Your task to perform on an android device: open app "Reddit" (install if not already installed) Image 0: 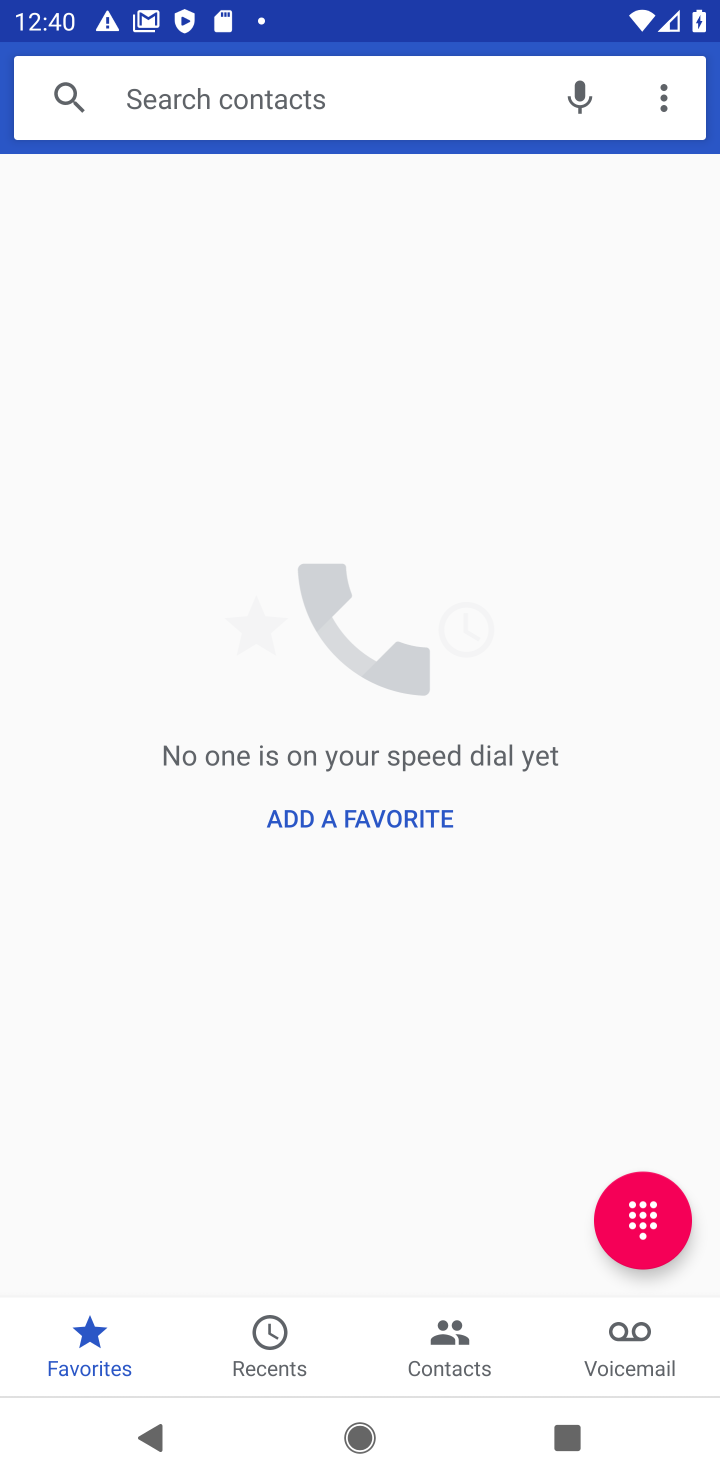
Step 0: press back button
Your task to perform on an android device: open app "Reddit" (install if not already installed) Image 1: 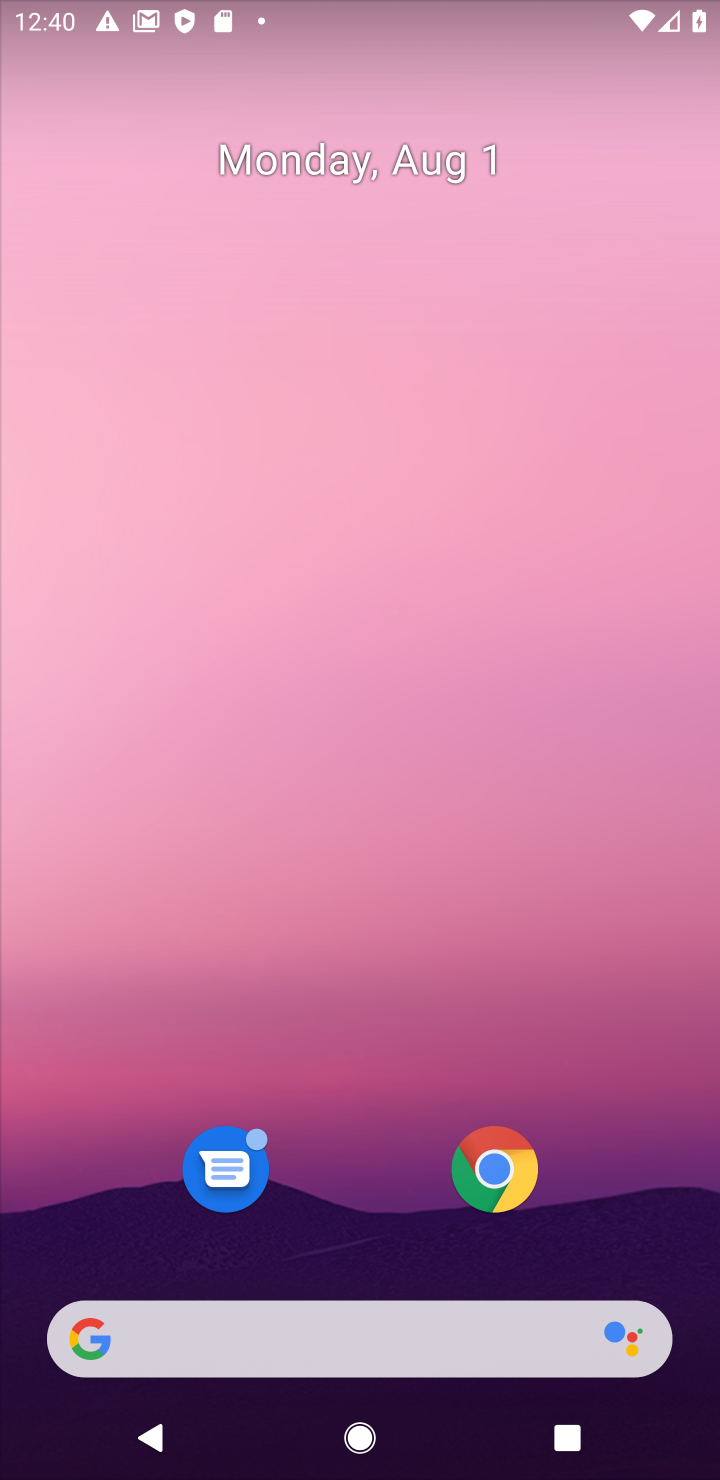
Step 1: drag from (326, 1133) to (343, 186)
Your task to perform on an android device: open app "Reddit" (install if not already installed) Image 2: 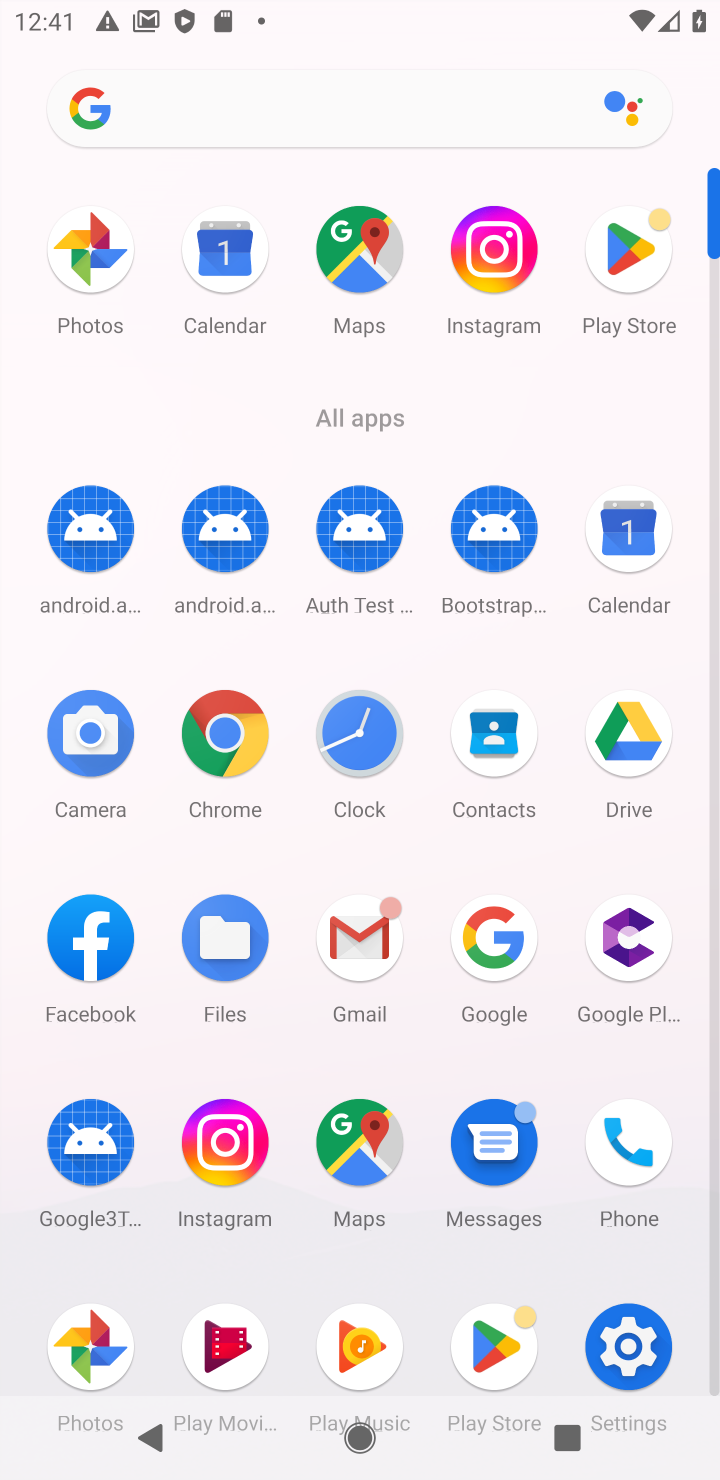
Step 2: click (482, 1361)
Your task to perform on an android device: open app "Reddit" (install if not already installed) Image 3: 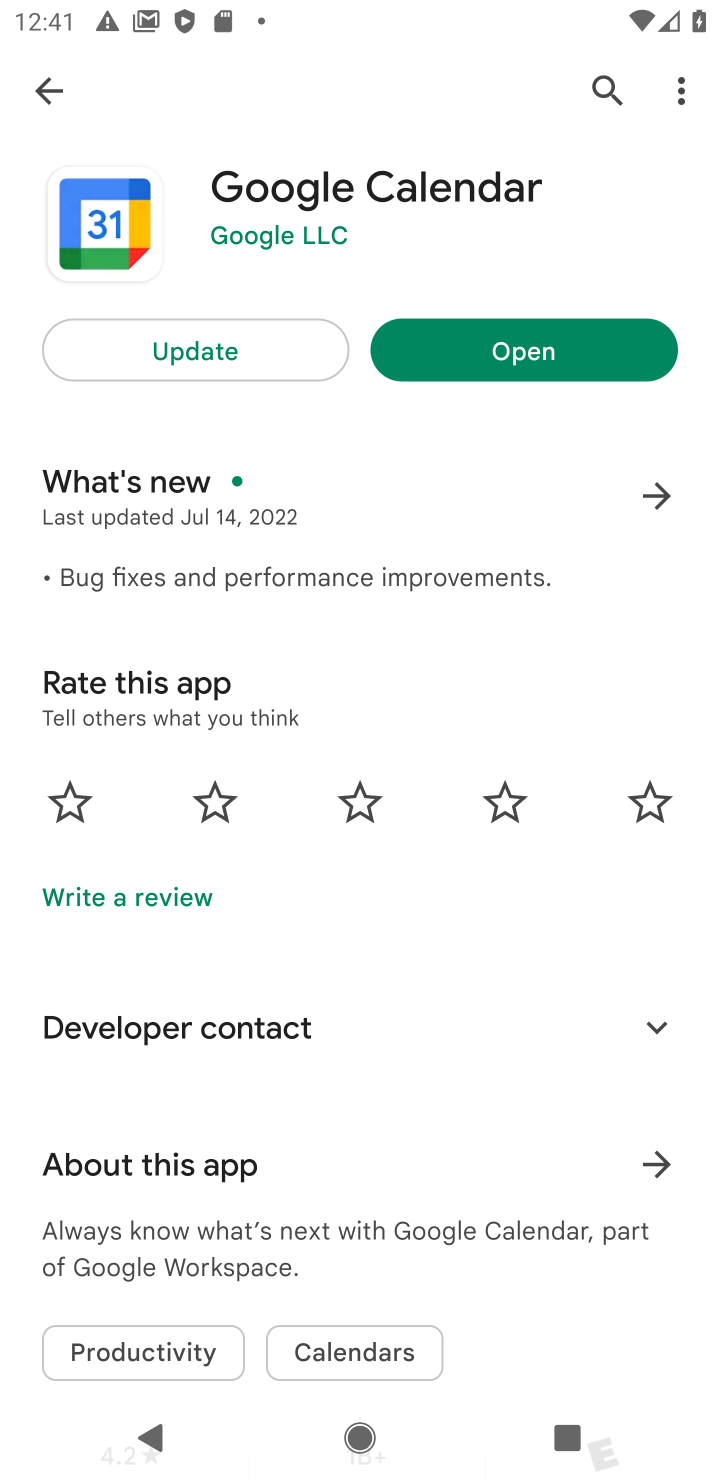
Step 3: click (48, 71)
Your task to perform on an android device: open app "Reddit" (install if not already installed) Image 4: 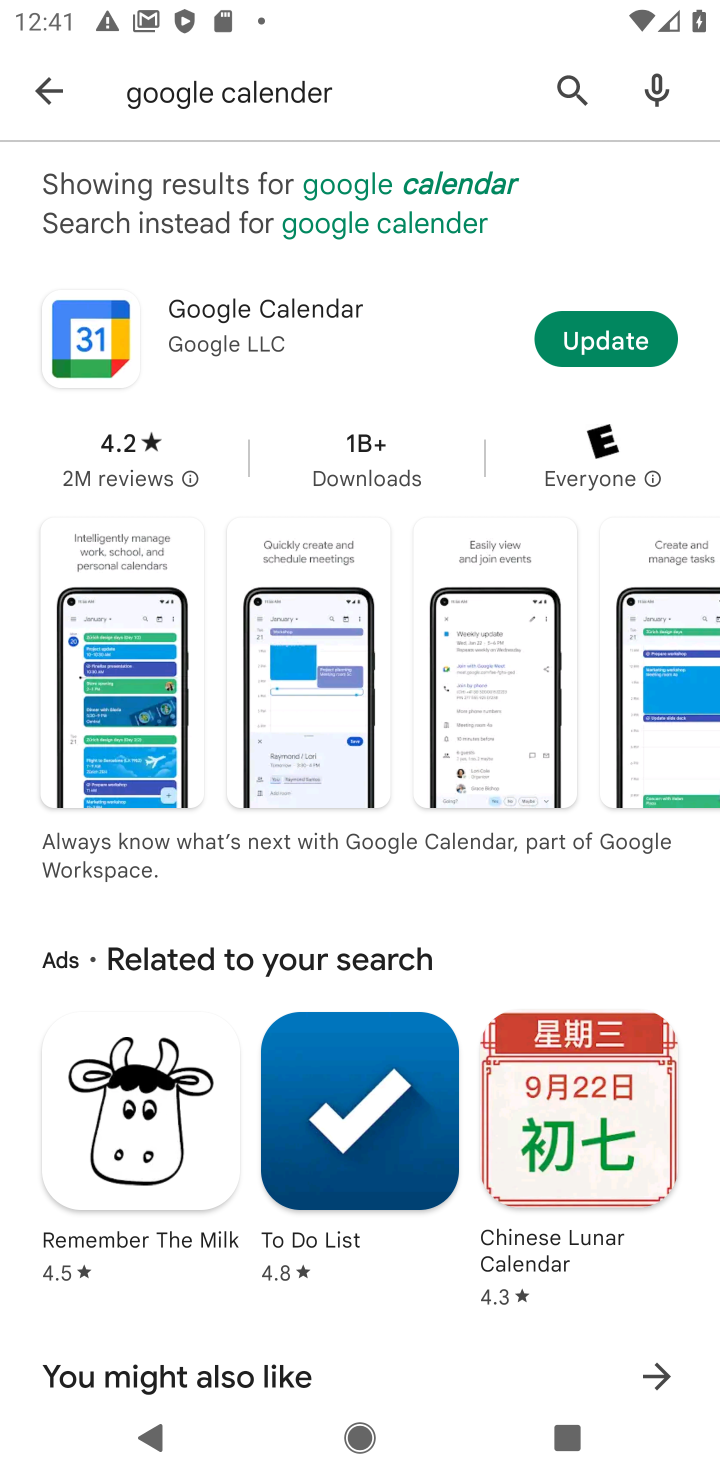
Step 4: click (48, 95)
Your task to perform on an android device: open app "Reddit" (install if not already installed) Image 5: 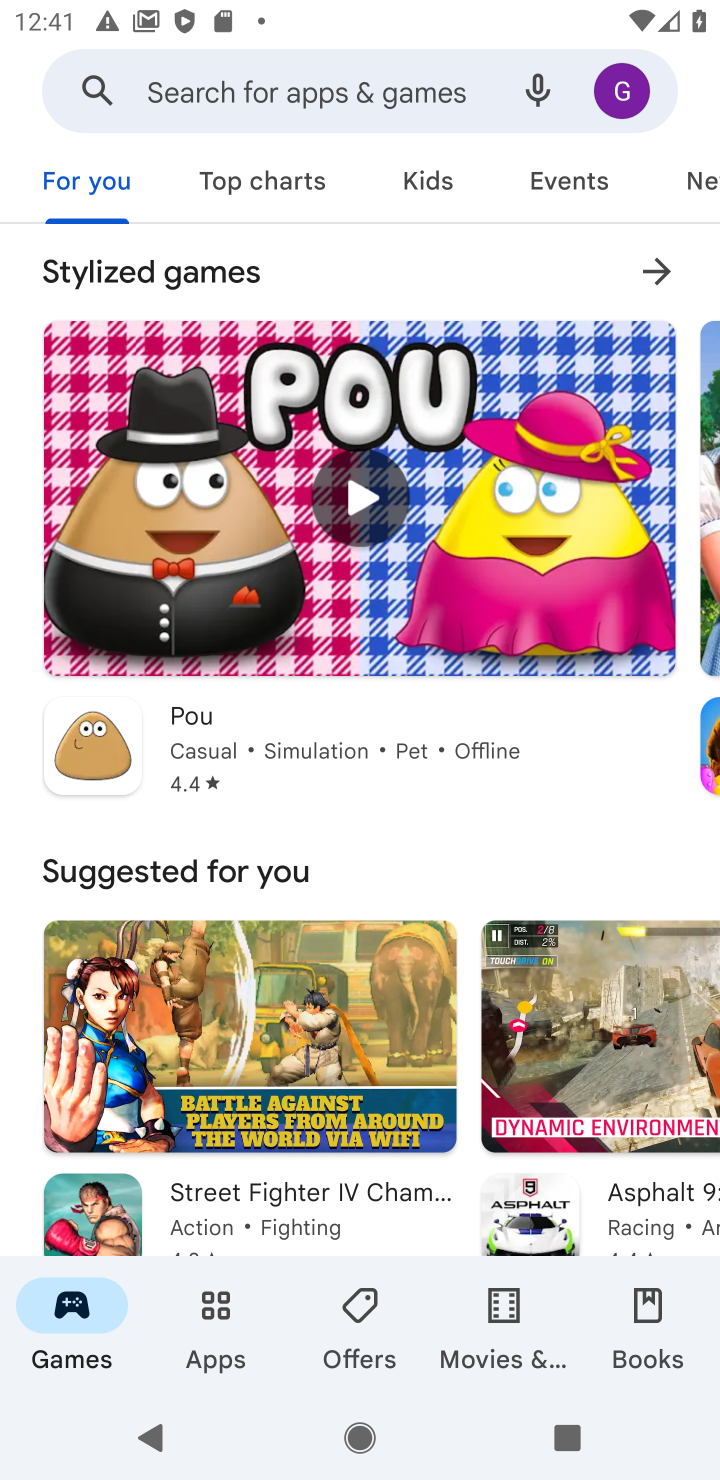
Step 5: click (174, 98)
Your task to perform on an android device: open app "Reddit" (install if not already installed) Image 6: 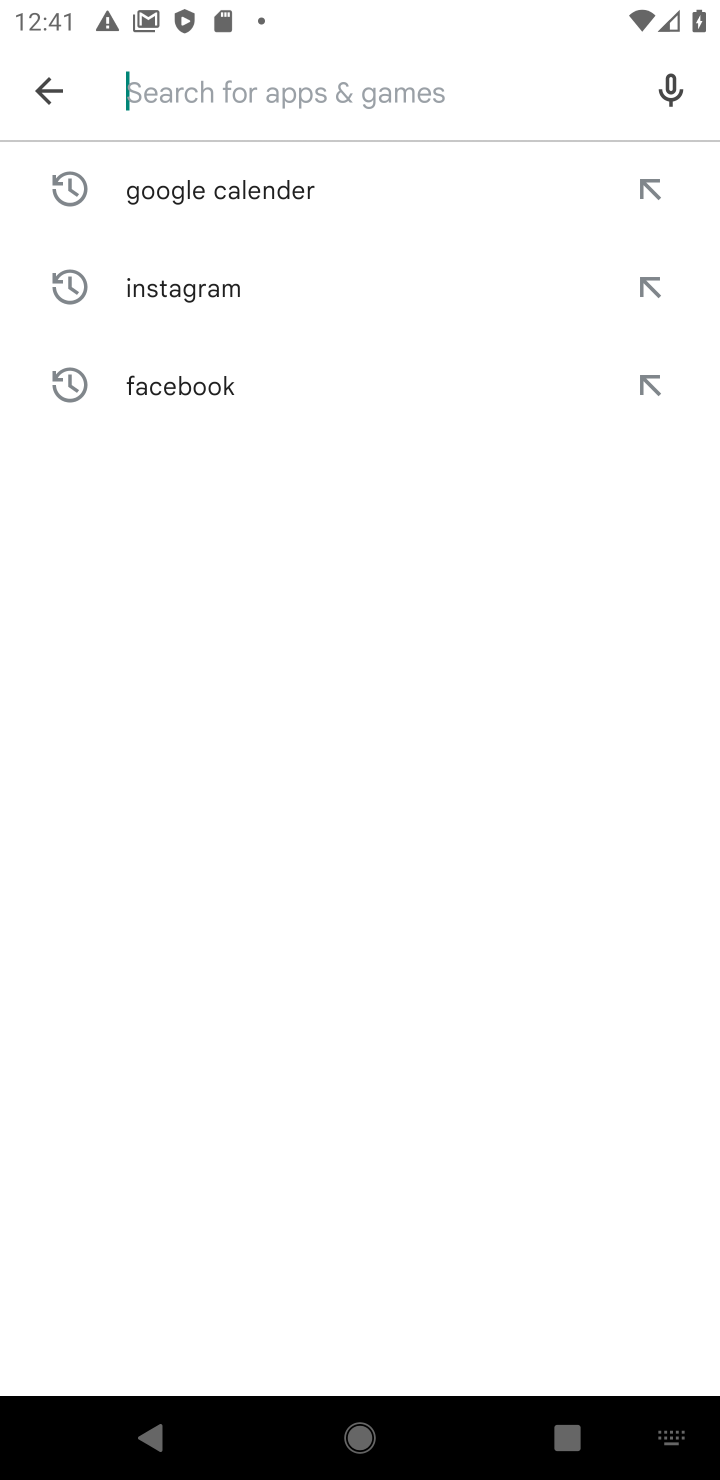
Step 6: type "Reddit"
Your task to perform on an android device: open app "Reddit" (install if not already installed) Image 7: 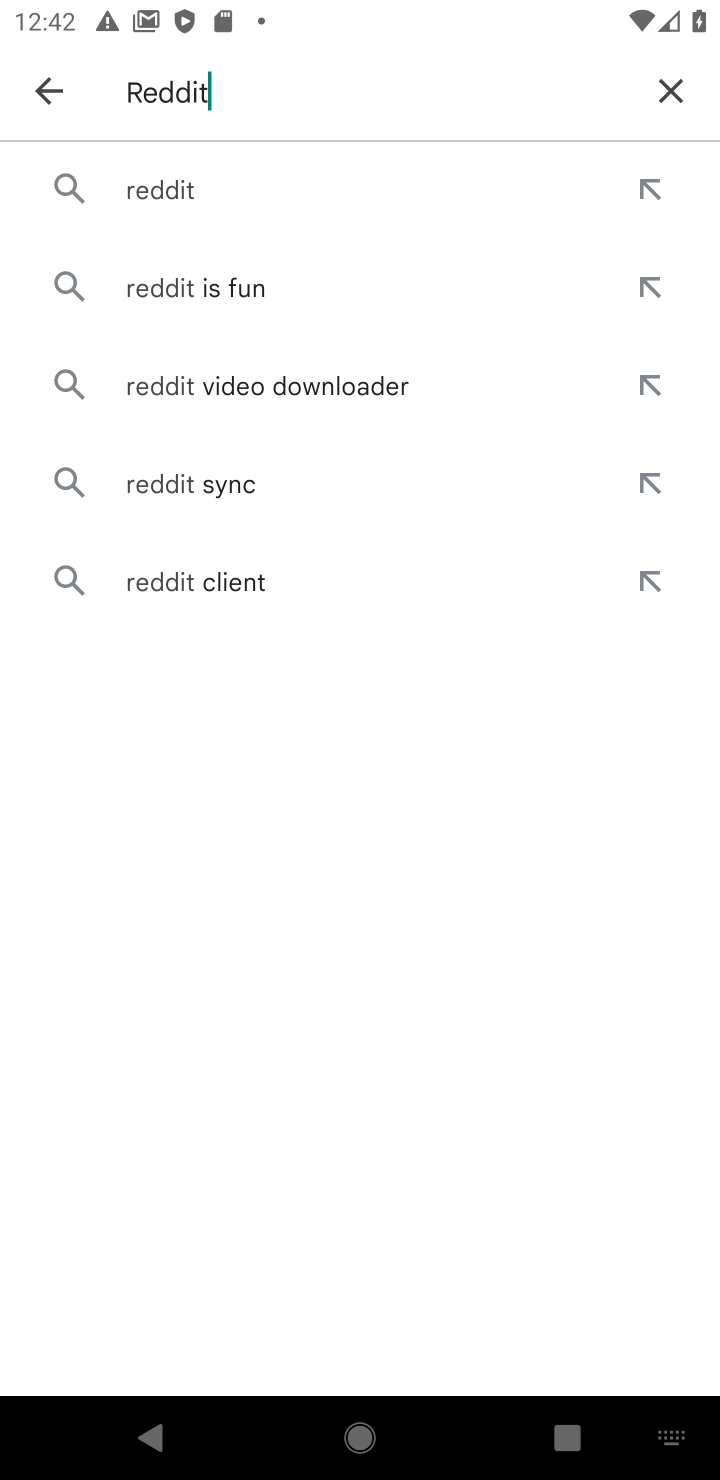
Step 7: click (178, 200)
Your task to perform on an android device: open app "Reddit" (install if not already installed) Image 8: 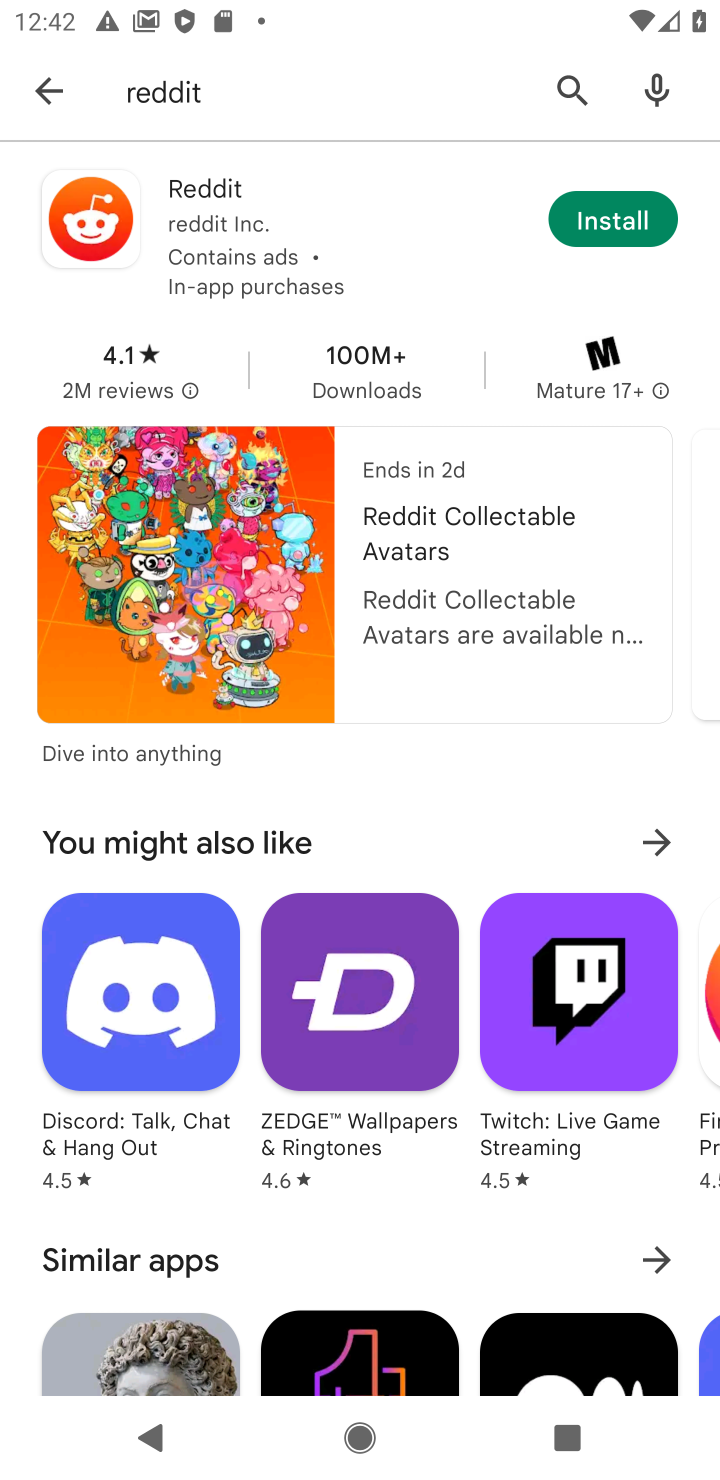
Step 8: click (635, 211)
Your task to perform on an android device: open app "Reddit" (install if not already installed) Image 9: 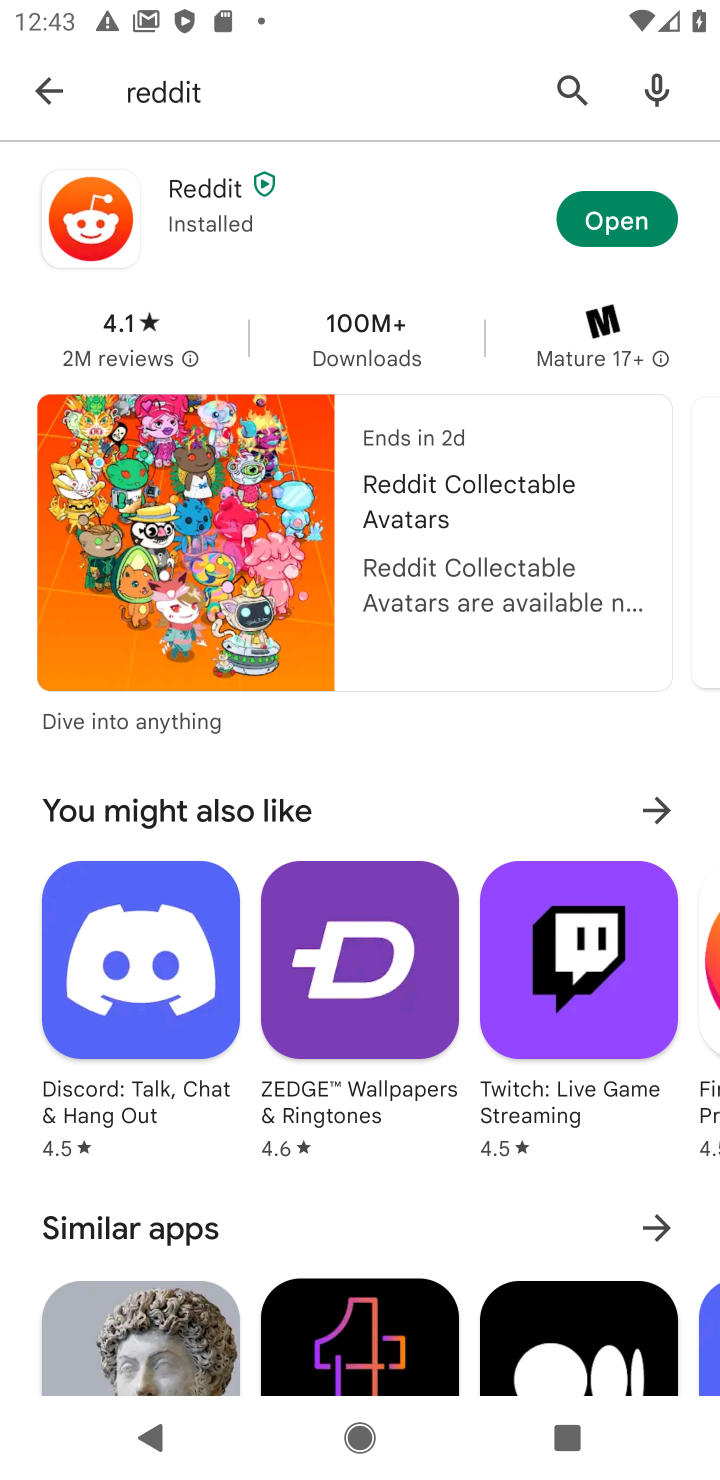
Step 9: click (599, 233)
Your task to perform on an android device: open app "Reddit" (install if not already installed) Image 10: 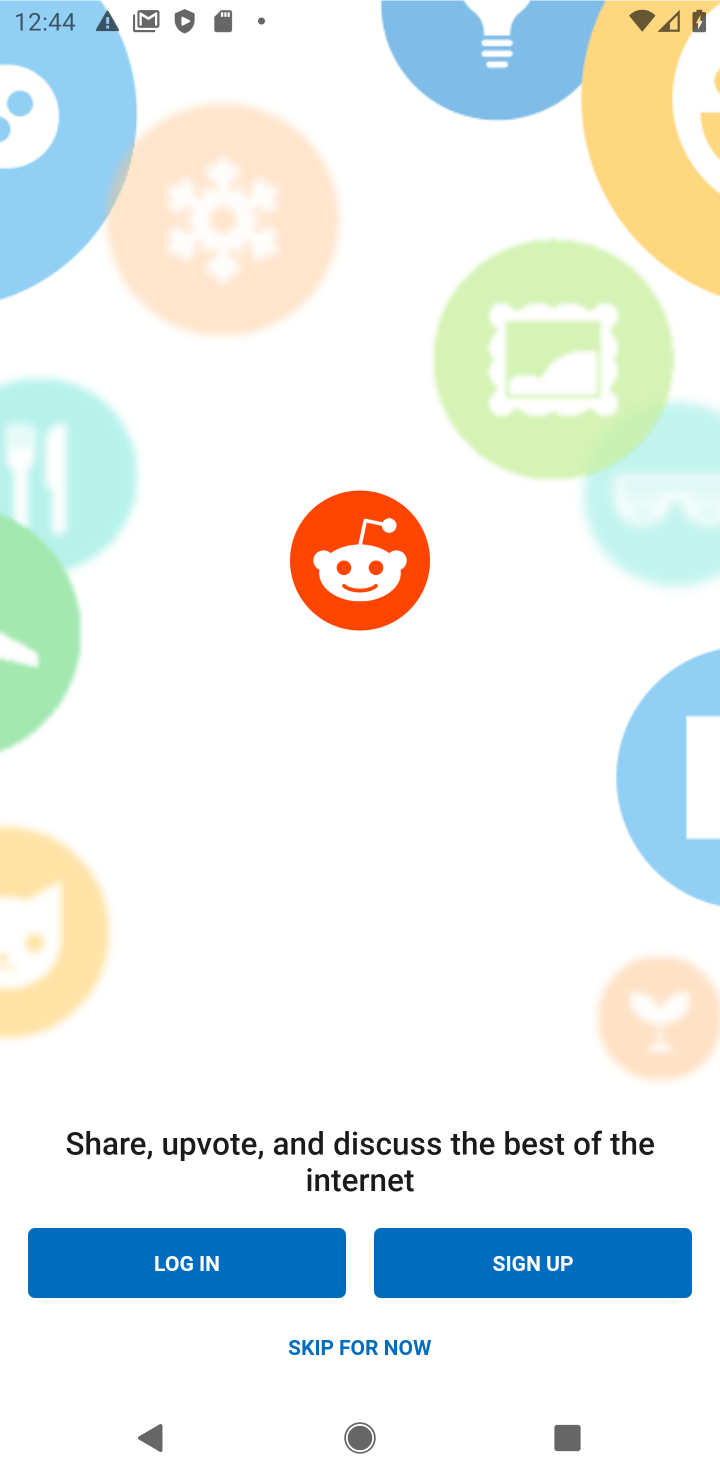
Step 10: task complete